Your task to perform on an android device: What is the news today? Image 0: 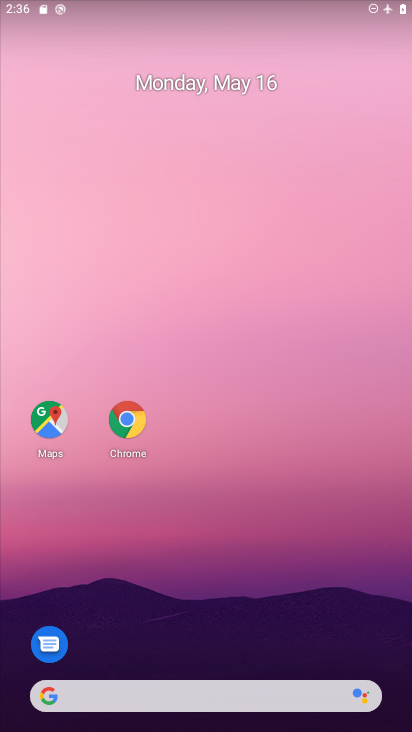
Step 0: drag from (200, 605) to (175, 115)
Your task to perform on an android device: What is the news today? Image 1: 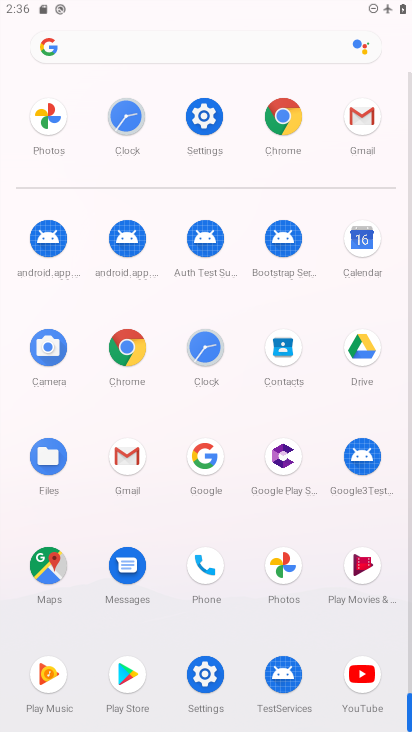
Step 1: click (198, 51)
Your task to perform on an android device: What is the news today? Image 2: 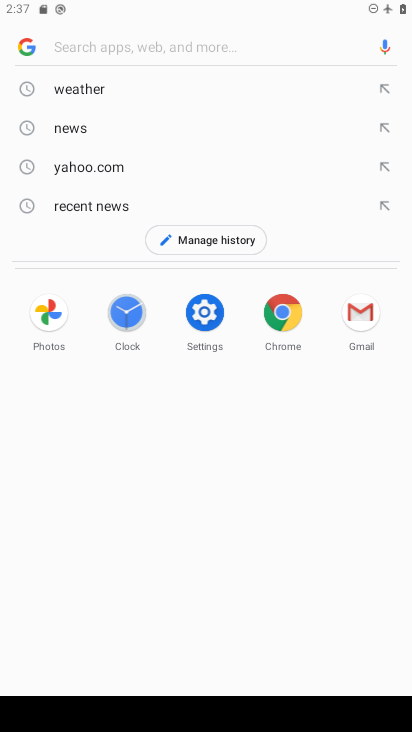
Step 2: type "news today"
Your task to perform on an android device: What is the news today? Image 3: 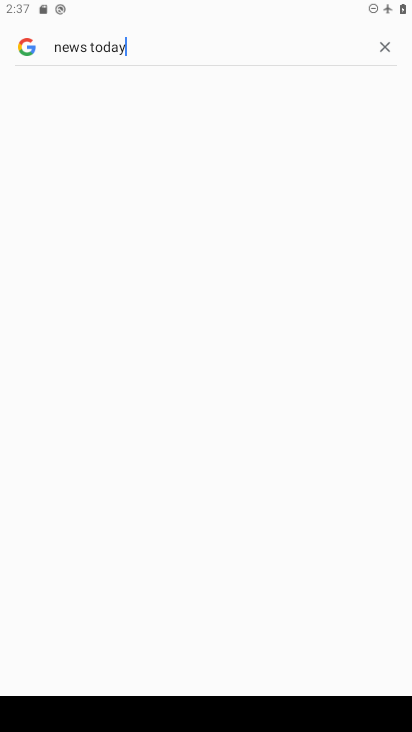
Step 3: click (128, 101)
Your task to perform on an android device: What is the news today? Image 4: 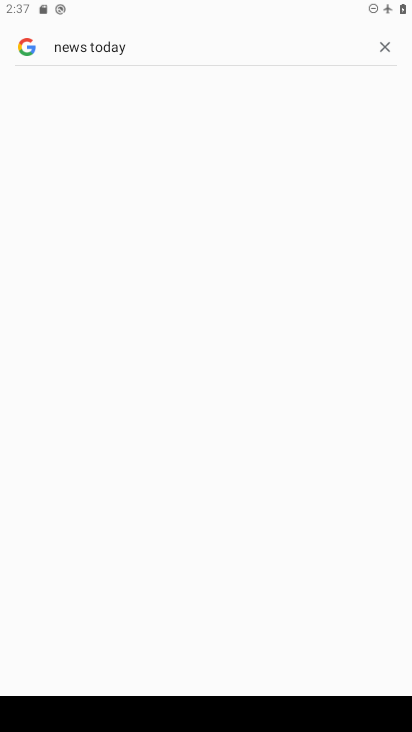
Step 4: task complete